Your task to perform on an android device: turn off location Image 0: 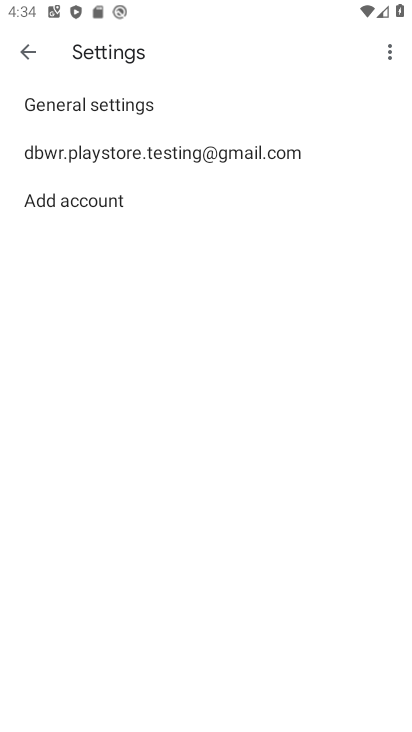
Step 0: press home button
Your task to perform on an android device: turn off location Image 1: 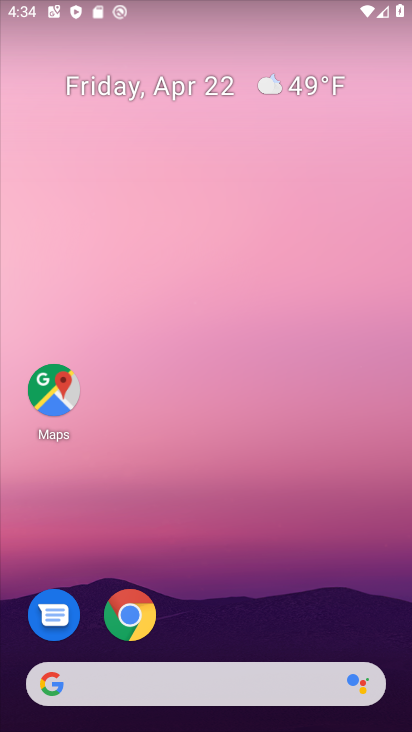
Step 1: drag from (229, 608) to (204, 258)
Your task to perform on an android device: turn off location Image 2: 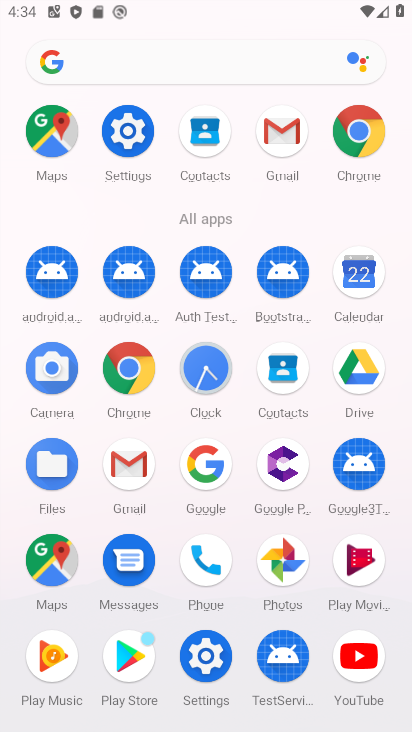
Step 2: click (126, 140)
Your task to perform on an android device: turn off location Image 3: 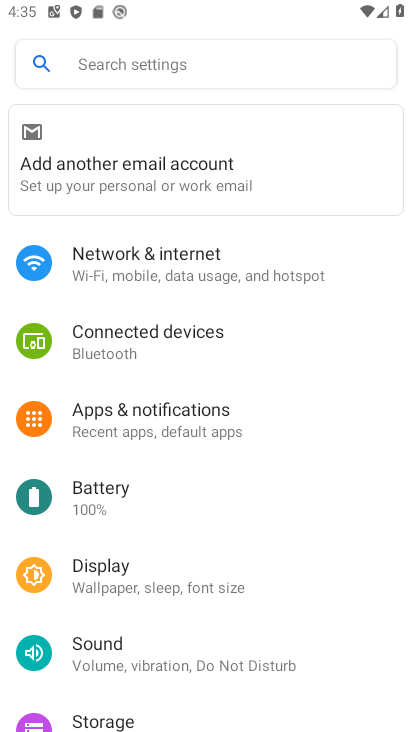
Step 3: drag from (217, 415) to (242, 248)
Your task to perform on an android device: turn off location Image 4: 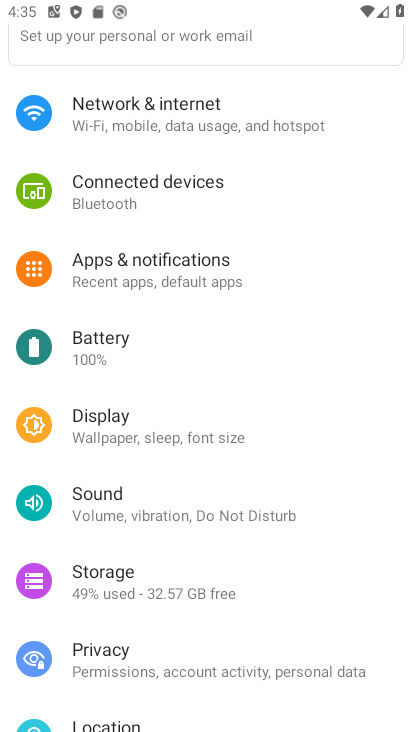
Step 4: drag from (208, 552) to (235, 282)
Your task to perform on an android device: turn off location Image 5: 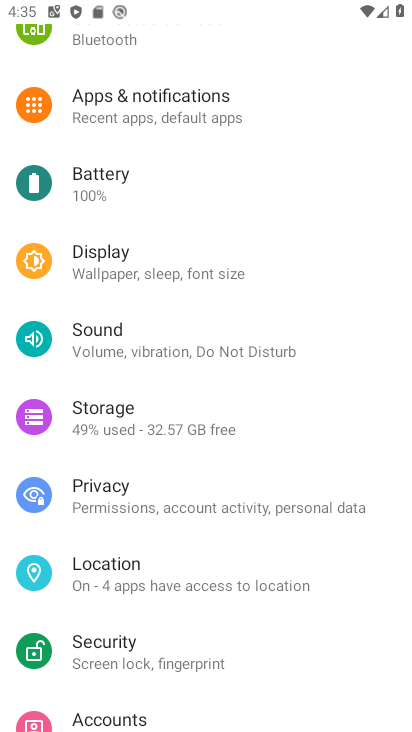
Step 5: click (131, 556)
Your task to perform on an android device: turn off location Image 6: 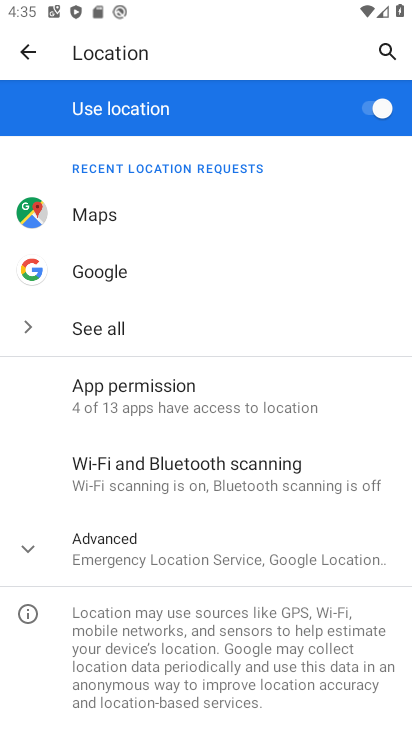
Step 6: click (368, 110)
Your task to perform on an android device: turn off location Image 7: 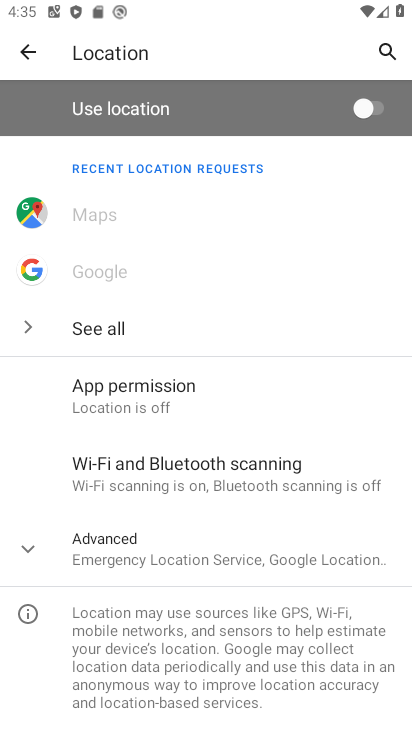
Step 7: task complete